Your task to perform on an android device: see tabs open on other devices in the chrome app Image 0: 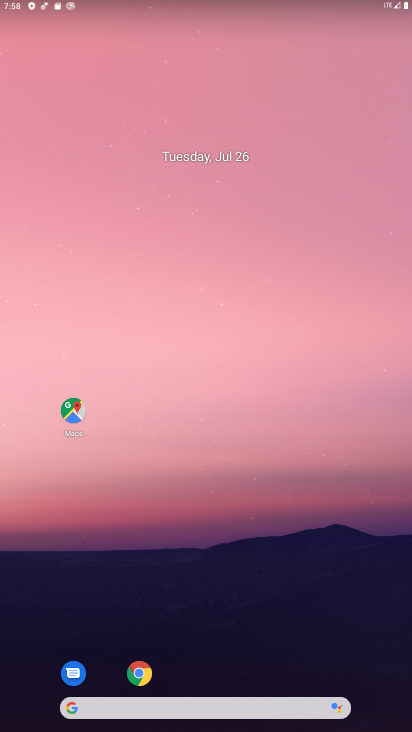
Step 0: drag from (367, 669) to (179, 73)
Your task to perform on an android device: see tabs open on other devices in the chrome app Image 1: 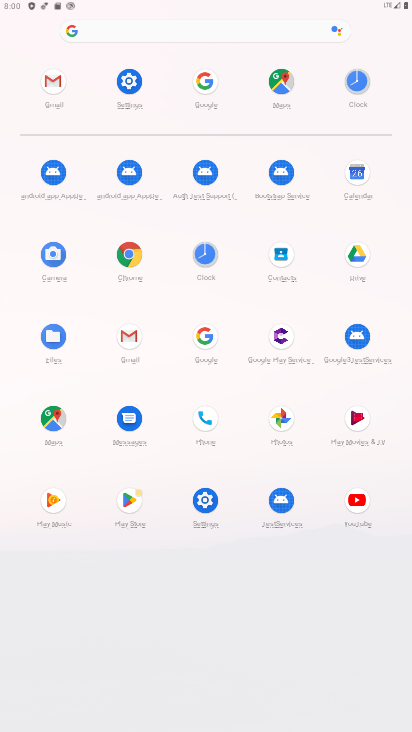
Step 1: click (137, 260)
Your task to perform on an android device: see tabs open on other devices in the chrome app Image 2: 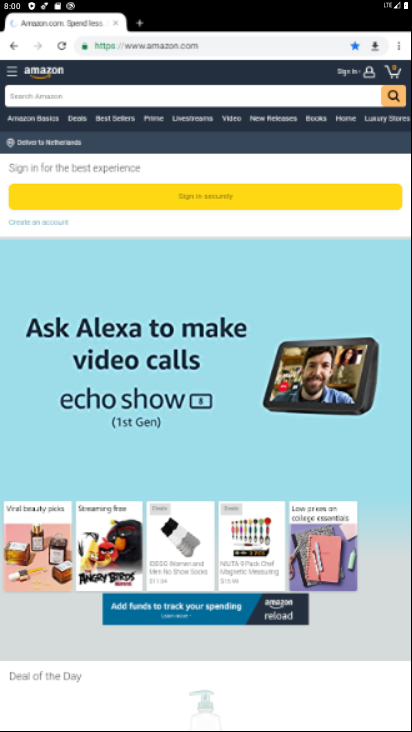
Step 2: task complete